Your task to perform on an android device: toggle translation in the chrome app Image 0: 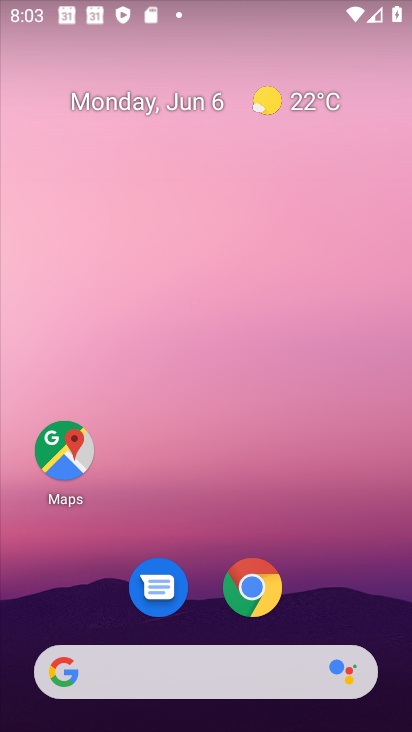
Step 0: click (252, 583)
Your task to perform on an android device: toggle translation in the chrome app Image 1: 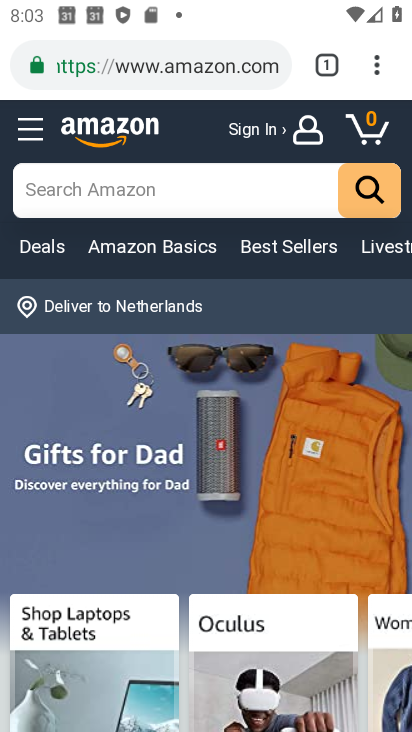
Step 1: click (377, 65)
Your task to perform on an android device: toggle translation in the chrome app Image 2: 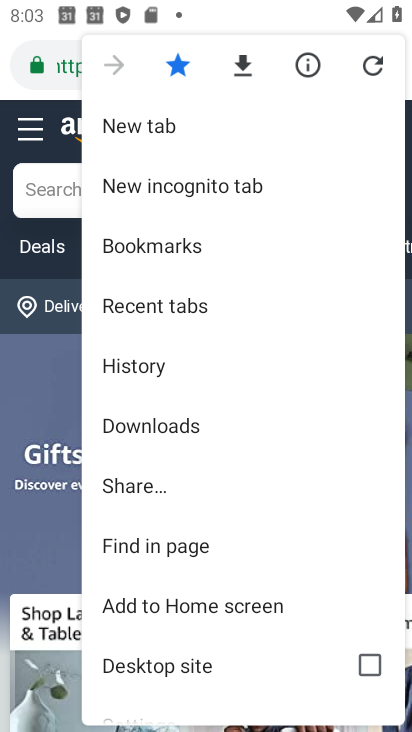
Step 2: drag from (167, 683) to (164, 262)
Your task to perform on an android device: toggle translation in the chrome app Image 3: 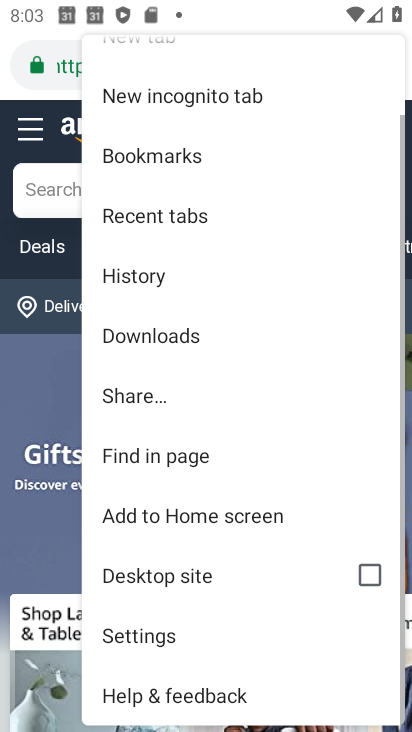
Step 3: click (152, 634)
Your task to perform on an android device: toggle translation in the chrome app Image 4: 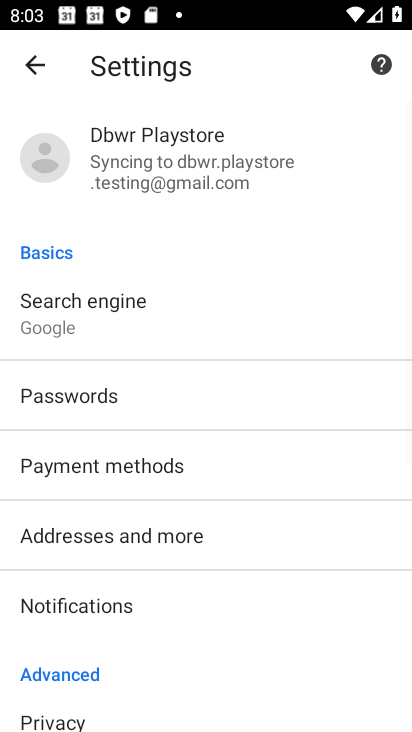
Step 4: drag from (114, 680) to (120, 403)
Your task to perform on an android device: toggle translation in the chrome app Image 5: 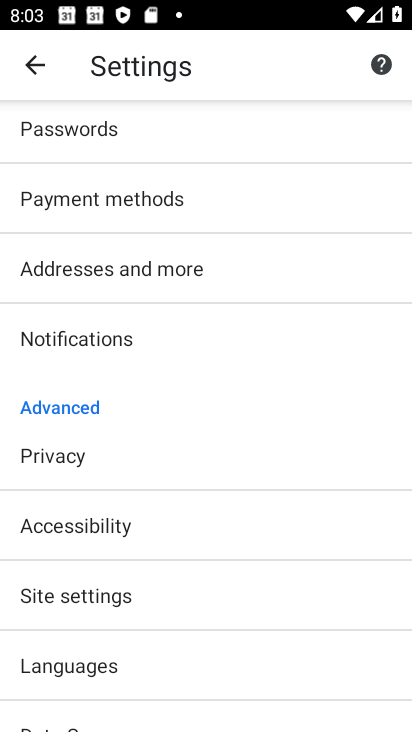
Step 5: click (80, 667)
Your task to perform on an android device: toggle translation in the chrome app Image 6: 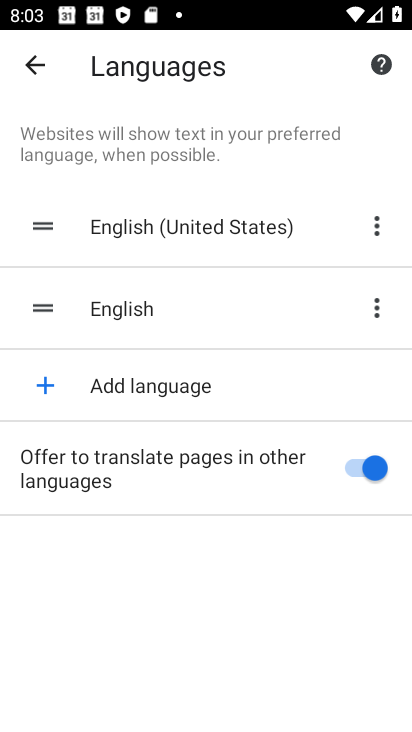
Step 6: click (353, 467)
Your task to perform on an android device: toggle translation in the chrome app Image 7: 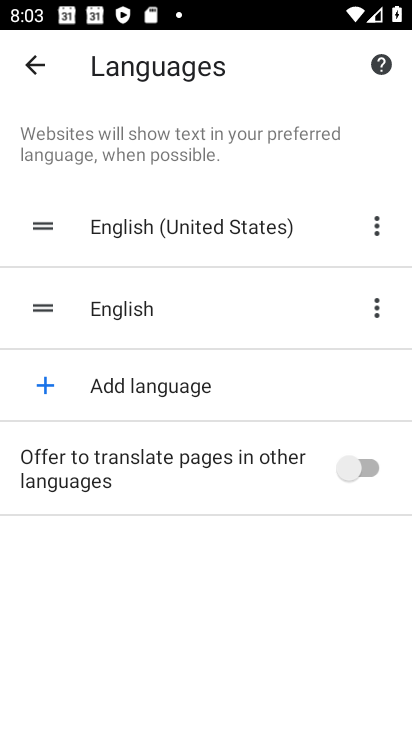
Step 7: task complete